Your task to perform on an android device: Open Youtube and go to "Your channel" Image 0: 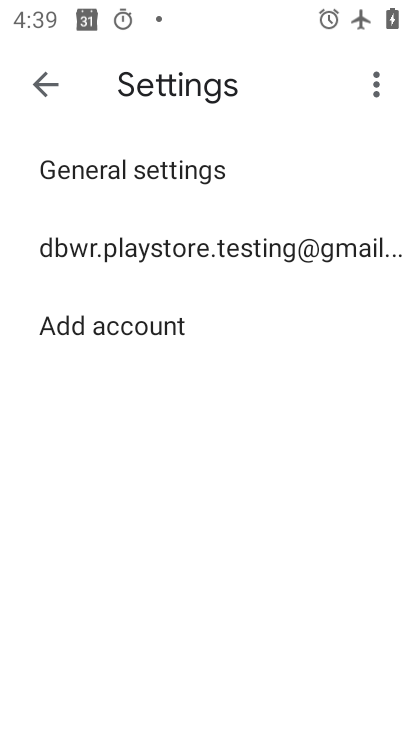
Step 0: press home button
Your task to perform on an android device: Open Youtube and go to "Your channel" Image 1: 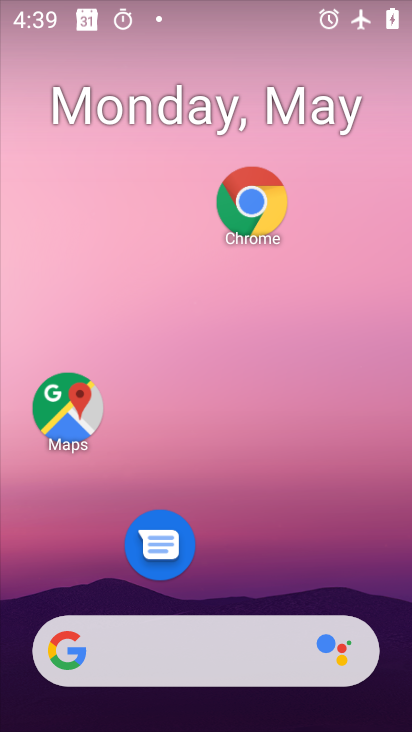
Step 1: drag from (244, 565) to (256, 149)
Your task to perform on an android device: Open Youtube and go to "Your channel" Image 2: 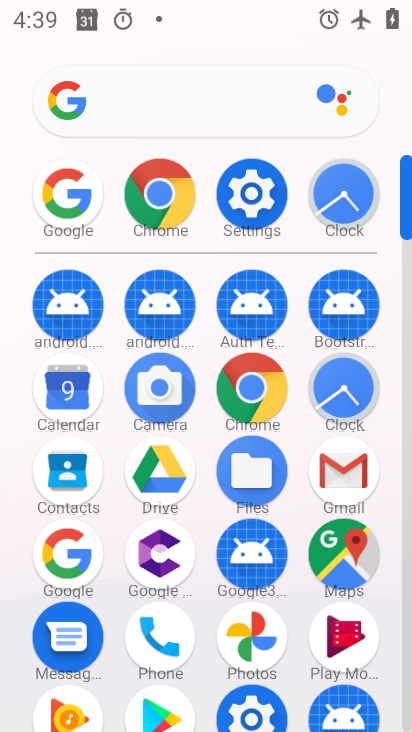
Step 2: drag from (211, 614) to (202, 232)
Your task to perform on an android device: Open Youtube and go to "Your channel" Image 3: 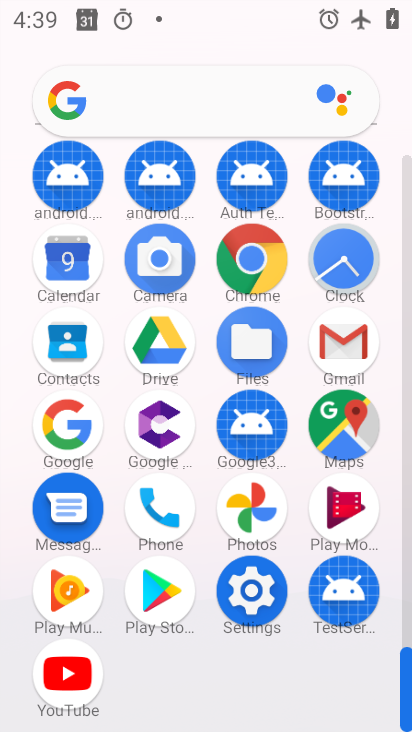
Step 3: click (202, 232)
Your task to perform on an android device: Open Youtube and go to "Your channel" Image 4: 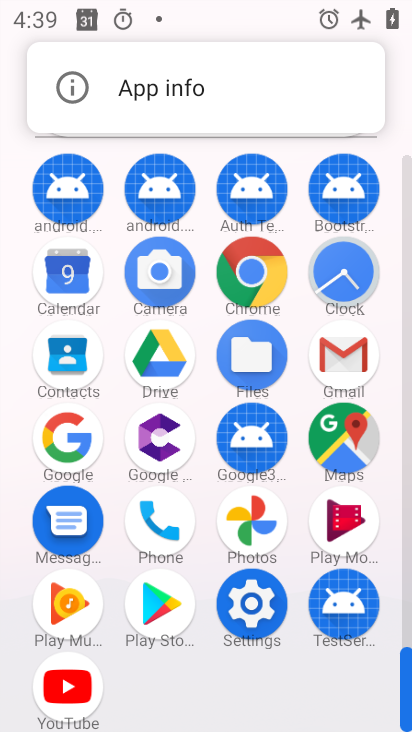
Step 4: click (52, 680)
Your task to perform on an android device: Open Youtube and go to "Your channel" Image 5: 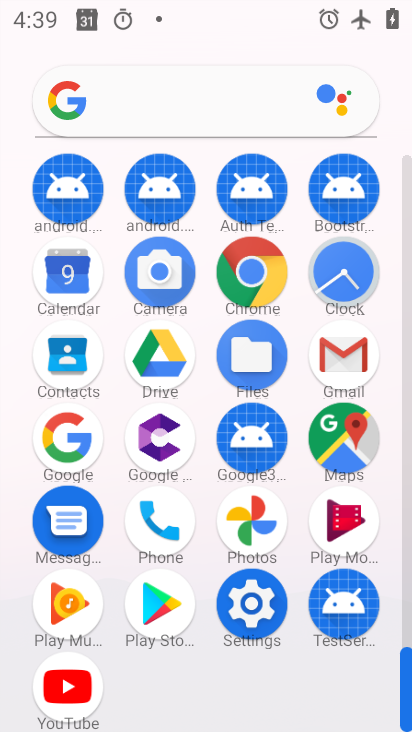
Step 5: click (54, 704)
Your task to perform on an android device: Open Youtube and go to "Your channel" Image 6: 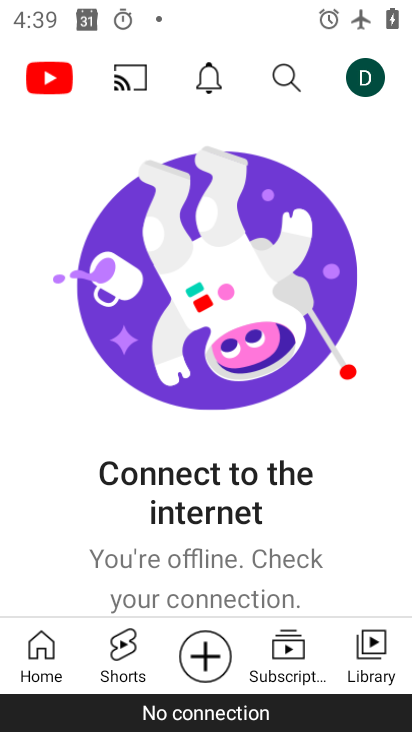
Step 6: click (361, 85)
Your task to perform on an android device: Open Youtube and go to "Your channel" Image 7: 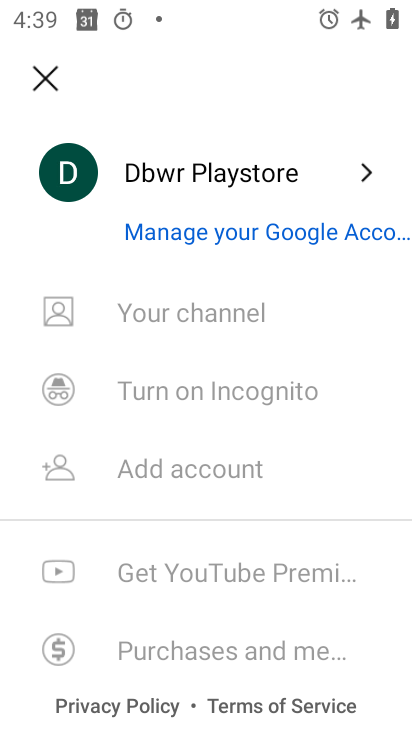
Step 7: click (190, 315)
Your task to perform on an android device: Open Youtube and go to "Your channel" Image 8: 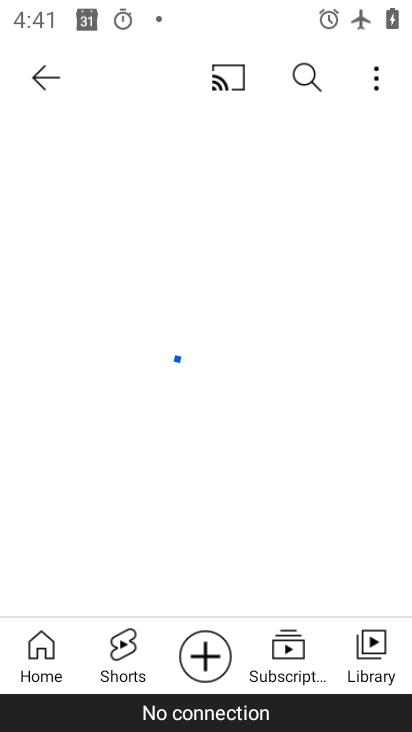
Step 8: task complete